Your task to perform on an android device: Search for the best rated 2021 Samsung Galaxy S21 Ultra on AliExpress Image 0: 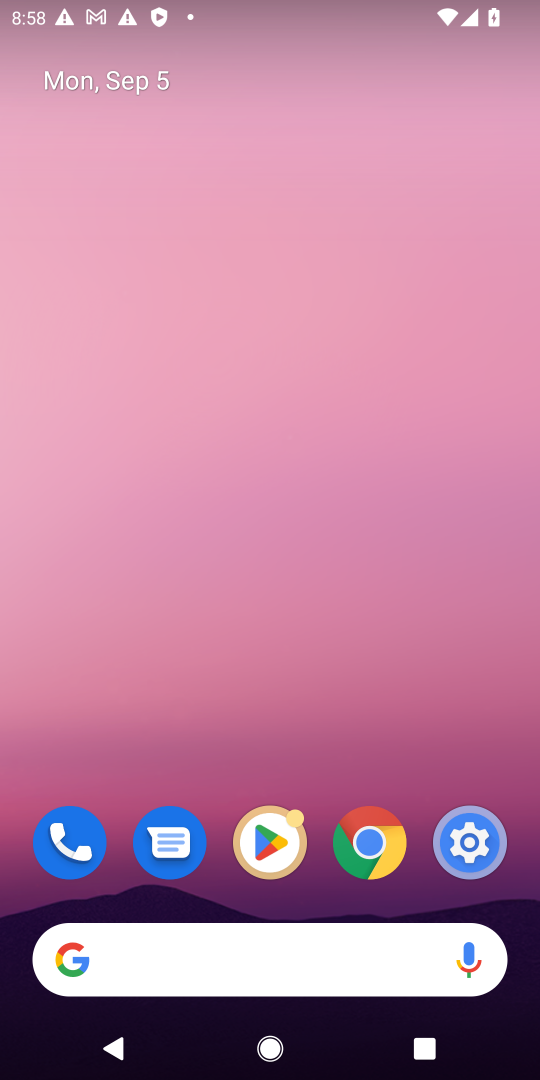
Step 0: click (367, 850)
Your task to perform on an android device: Search for the best rated 2021 Samsung Galaxy S21 Ultra on AliExpress Image 1: 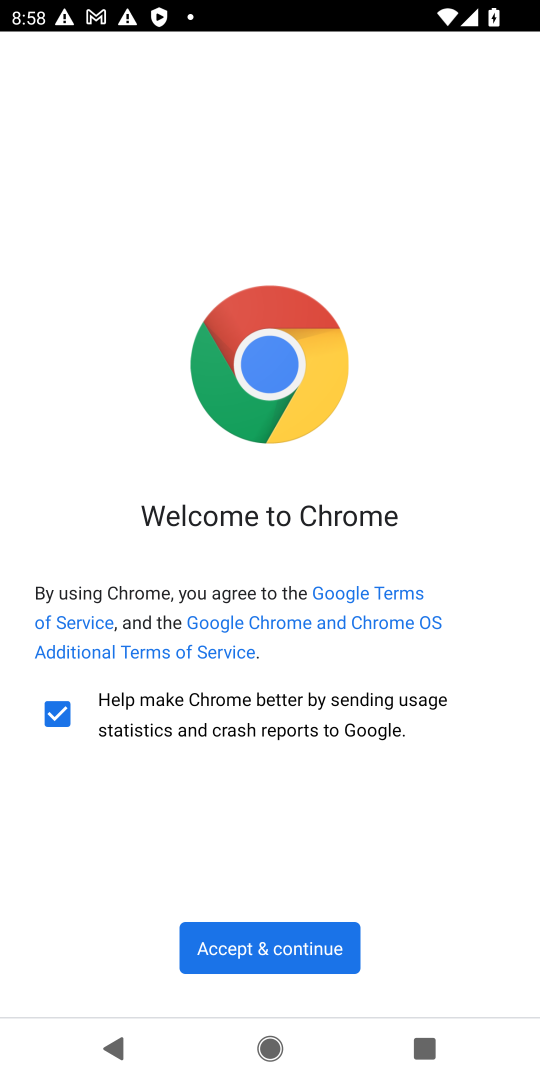
Step 1: click (234, 951)
Your task to perform on an android device: Search for the best rated 2021 Samsung Galaxy S21 Ultra on AliExpress Image 2: 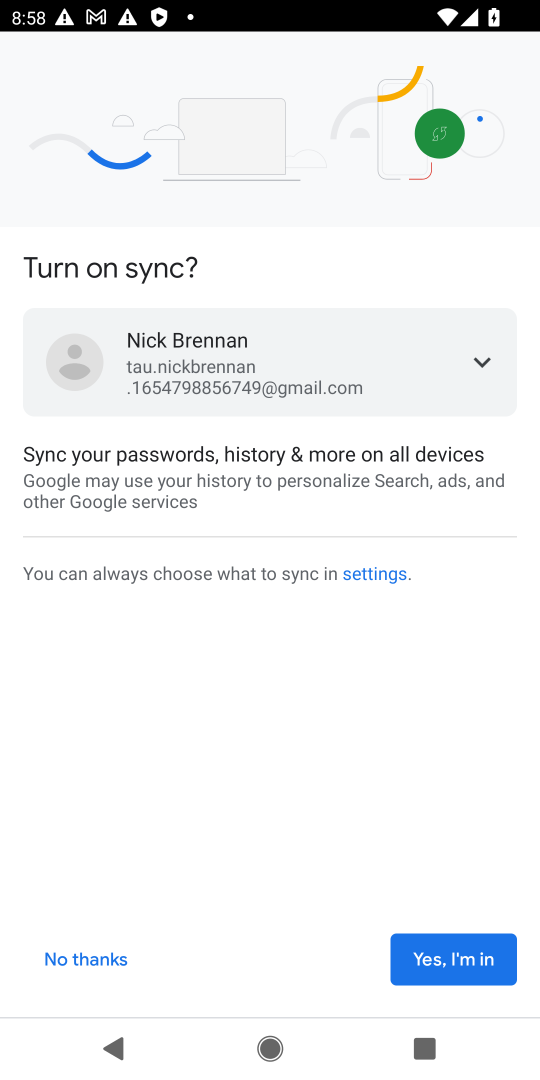
Step 2: click (454, 946)
Your task to perform on an android device: Search for the best rated 2021 Samsung Galaxy S21 Ultra on AliExpress Image 3: 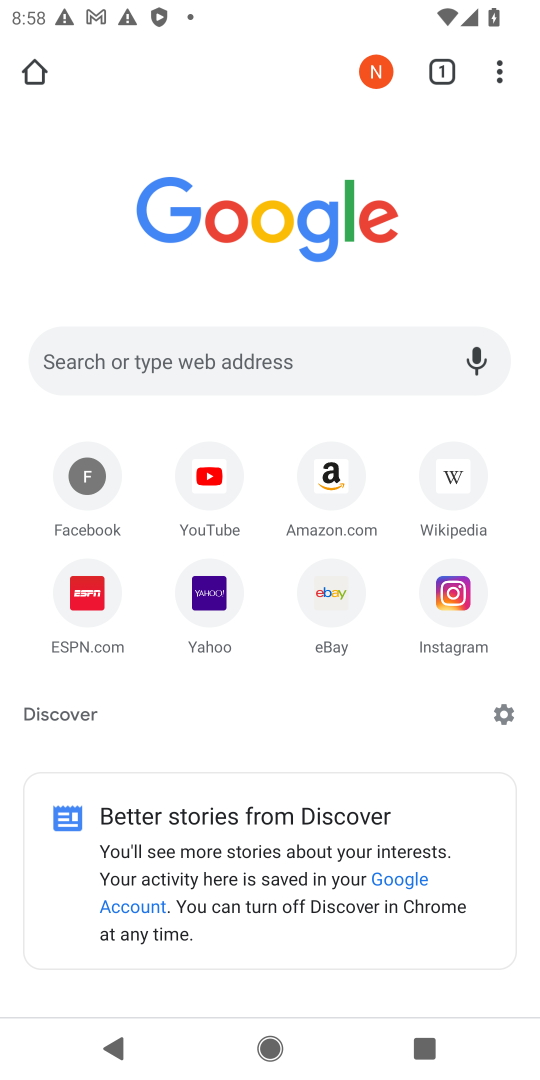
Step 3: click (135, 352)
Your task to perform on an android device: Search for the best rated 2021 Samsung Galaxy S21 Ultra on AliExpress Image 4: 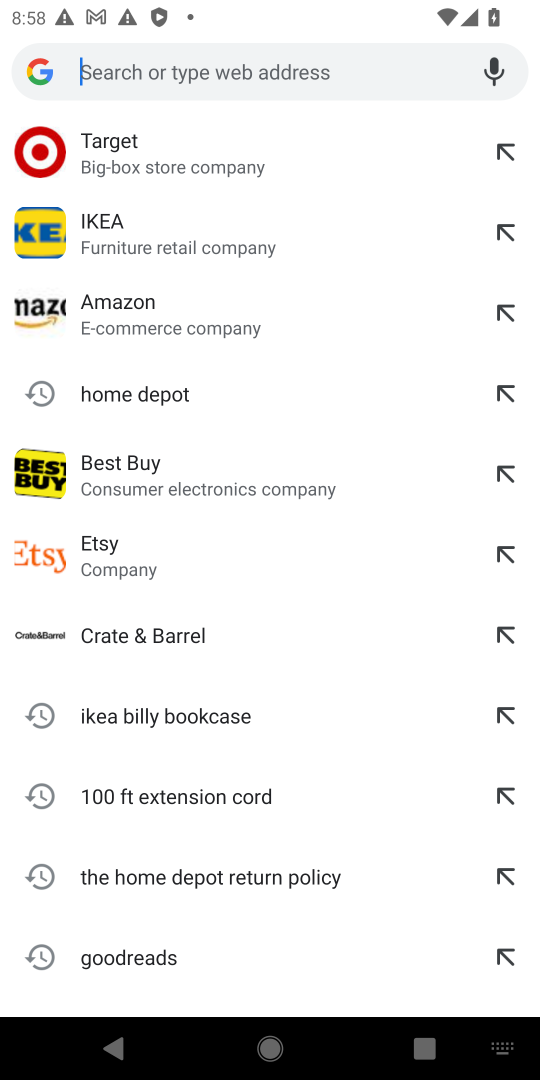
Step 4: type "ali express"
Your task to perform on an android device: Search for the best rated 2021 Samsung Galaxy S21 Ultra on AliExpress Image 5: 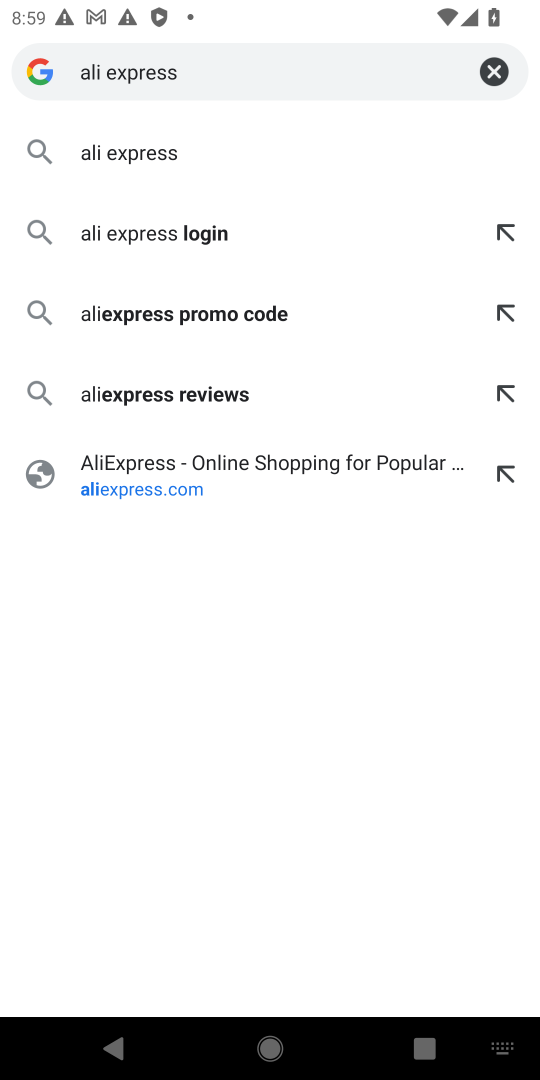
Step 5: click (129, 456)
Your task to perform on an android device: Search for the best rated 2021 Samsung Galaxy S21 Ultra on AliExpress Image 6: 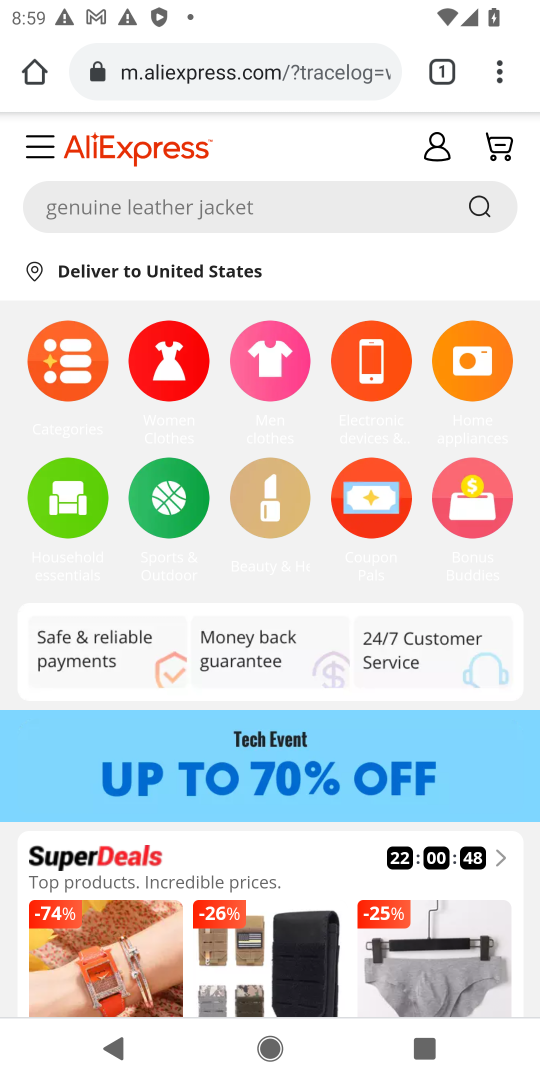
Step 6: click (350, 206)
Your task to perform on an android device: Search for the best rated 2021 Samsung Galaxy S21 Ultra on AliExpress Image 7: 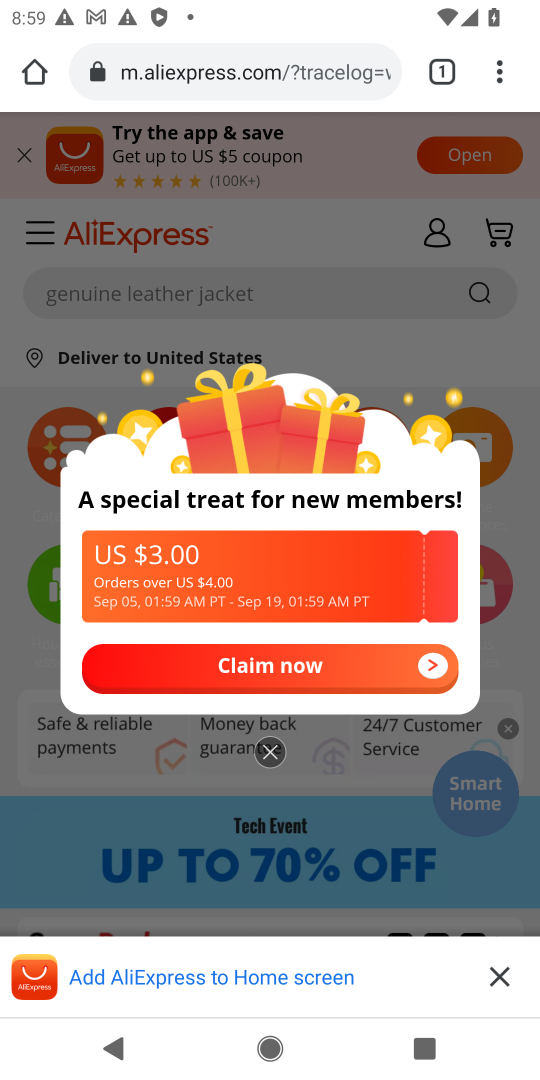
Step 7: click (269, 755)
Your task to perform on an android device: Search for the best rated 2021 Samsung Galaxy S21 Ultra on AliExpress Image 8: 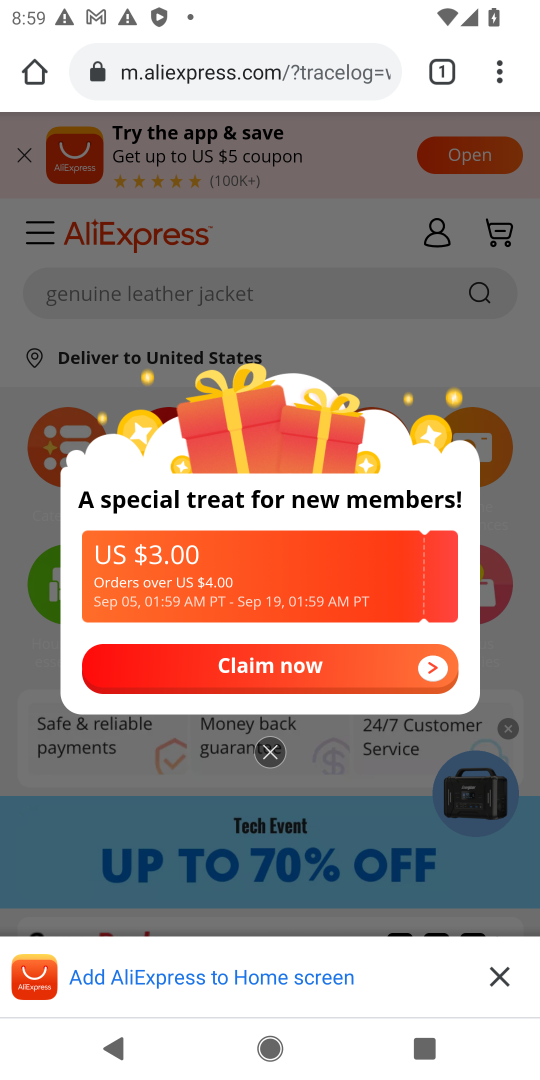
Step 8: click (263, 748)
Your task to perform on an android device: Search for the best rated 2021 Samsung Galaxy S21 Ultra on AliExpress Image 9: 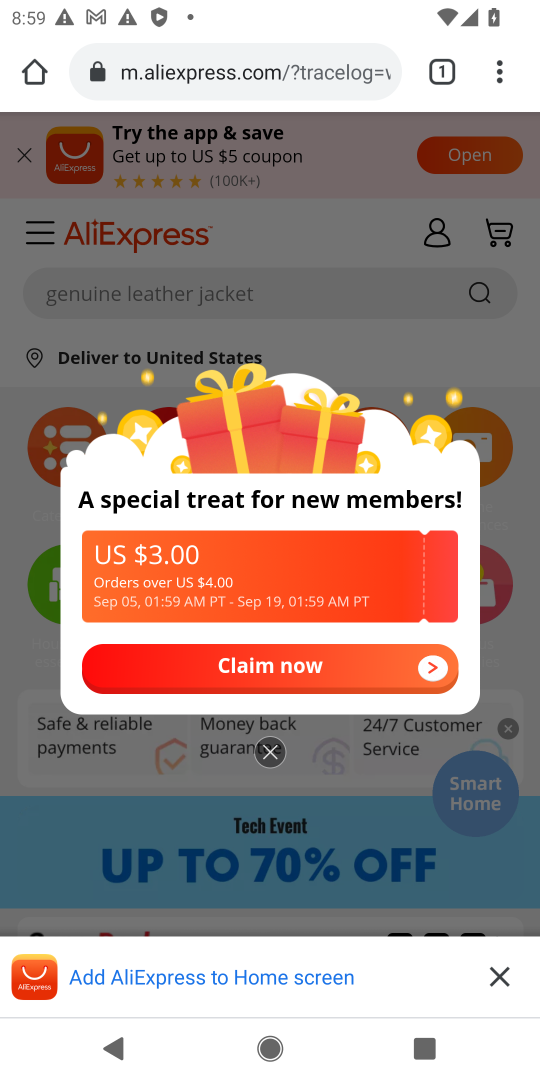
Step 9: click (274, 756)
Your task to perform on an android device: Search for the best rated 2021 Samsung Galaxy S21 Ultra on AliExpress Image 10: 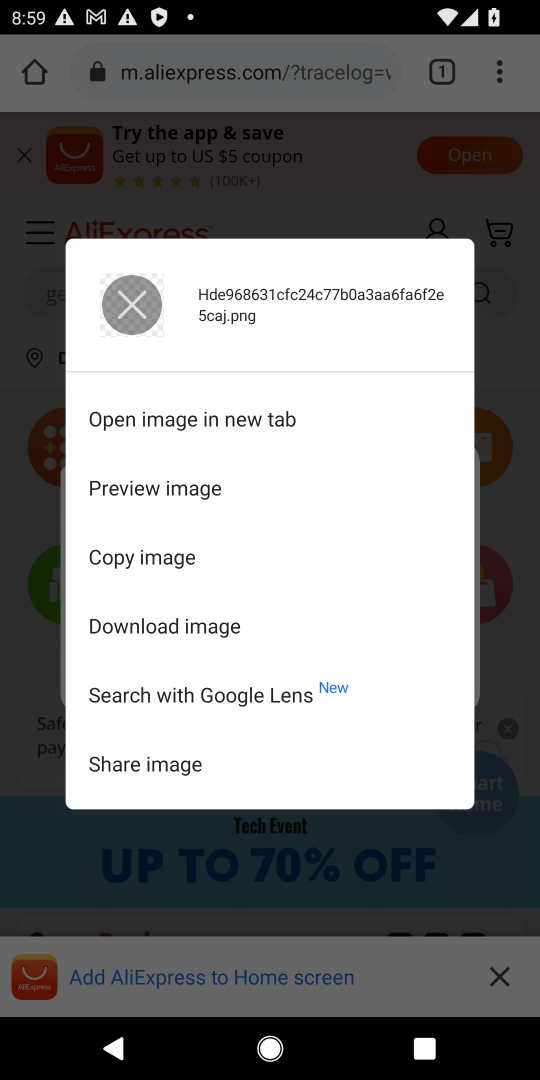
Step 10: click (130, 313)
Your task to perform on an android device: Search for the best rated 2021 Samsung Galaxy S21 Ultra on AliExpress Image 11: 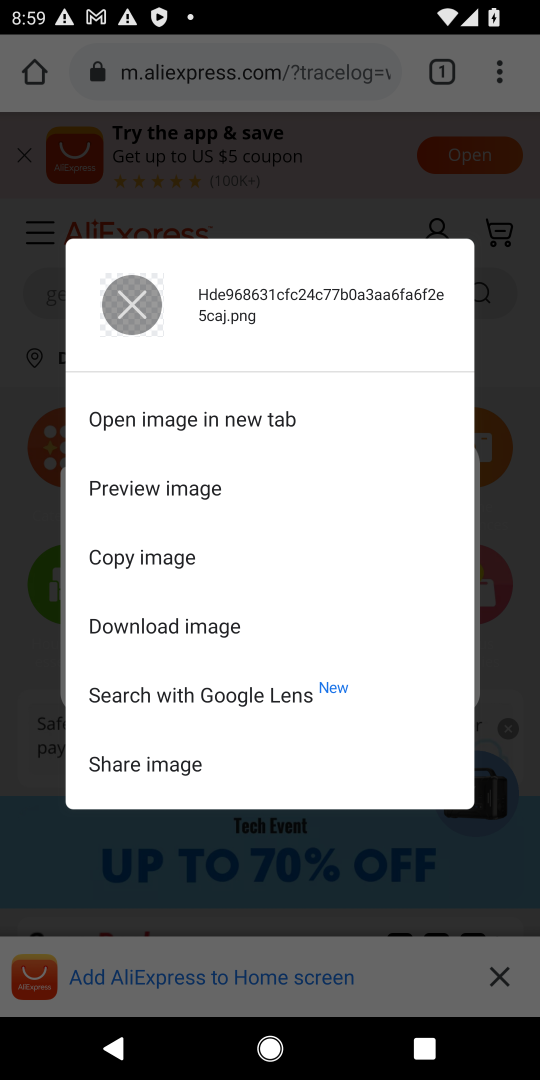
Step 11: click (128, 312)
Your task to perform on an android device: Search for the best rated 2021 Samsung Galaxy S21 Ultra on AliExpress Image 12: 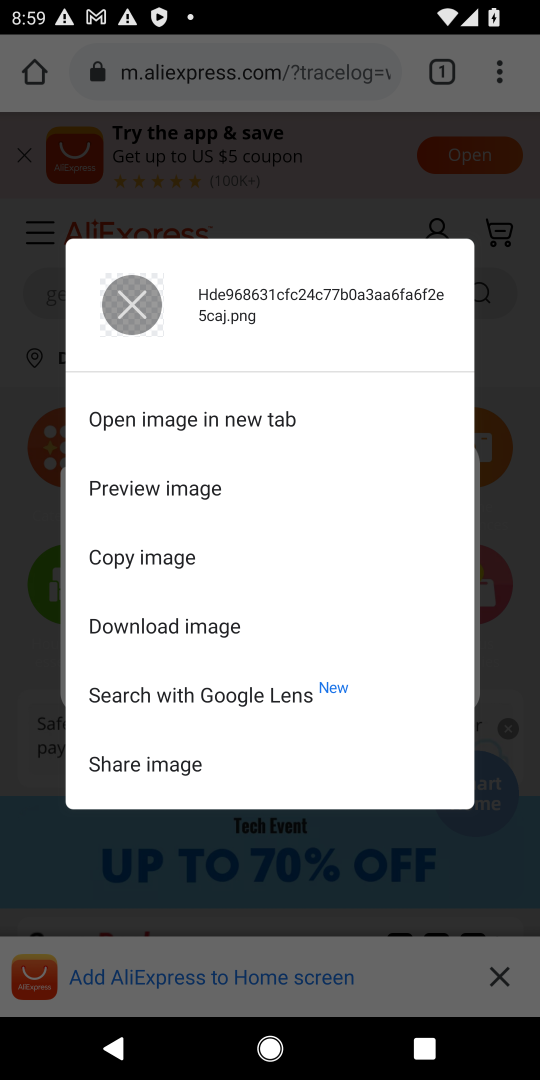
Step 12: click (128, 312)
Your task to perform on an android device: Search for the best rated 2021 Samsung Galaxy S21 Ultra on AliExpress Image 13: 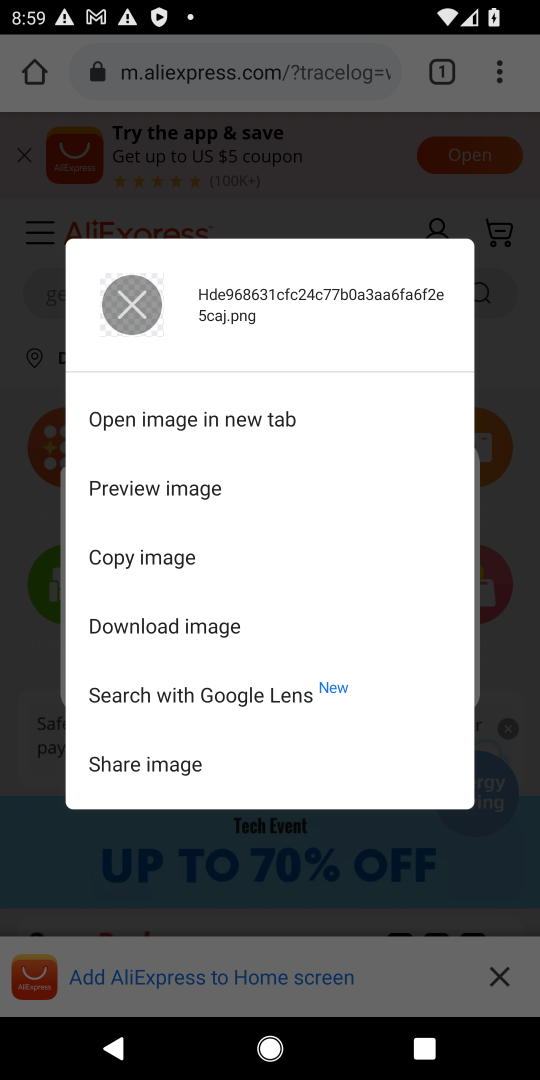
Step 13: click (131, 300)
Your task to perform on an android device: Search for the best rated 2021 Samsung Galaxy S21 Ultra on AliExpress Image 14: 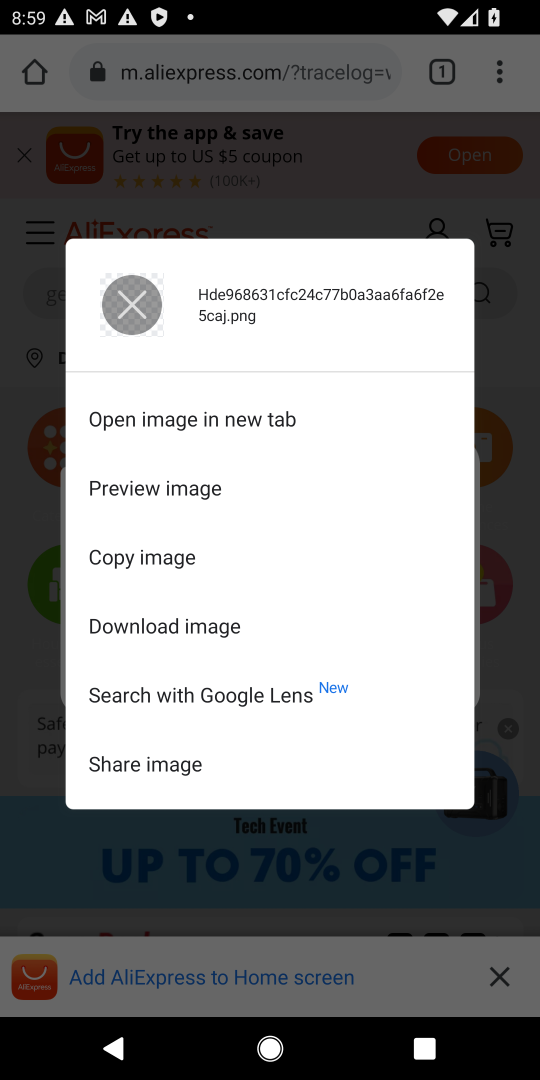
Step 14: press back button
Your task to perform on an android device: Search for the best rated 2021 Samsung Galaxy S21 Ultra on AliExpress Image 15: 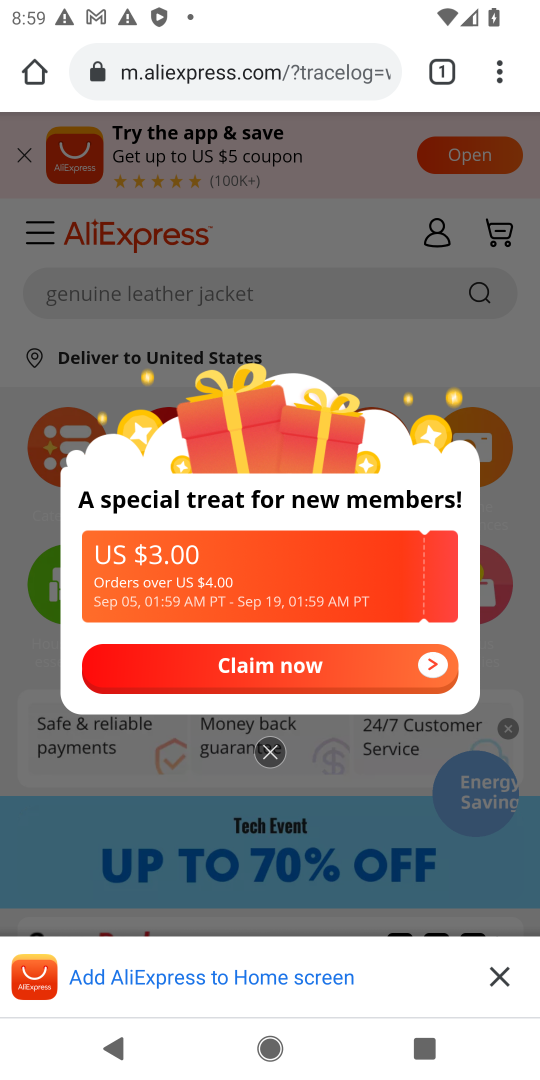
Step 15: click (272, 751)
Your task to perform on an android device: Search for the best rated 2021 Samsung Galaxy S21 Ultra on AliExpress Image 16: 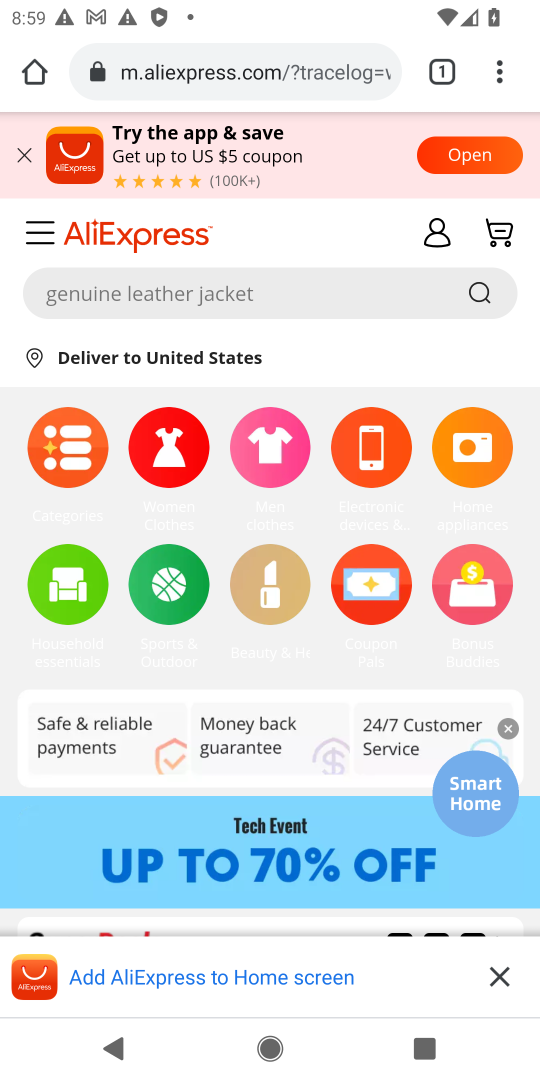
Step 16: click (236, 283)
Your task to perform on an android device: Search for the best rated 2021 Samsung Galaxy S21 Ultra on AliExpress Image 17: 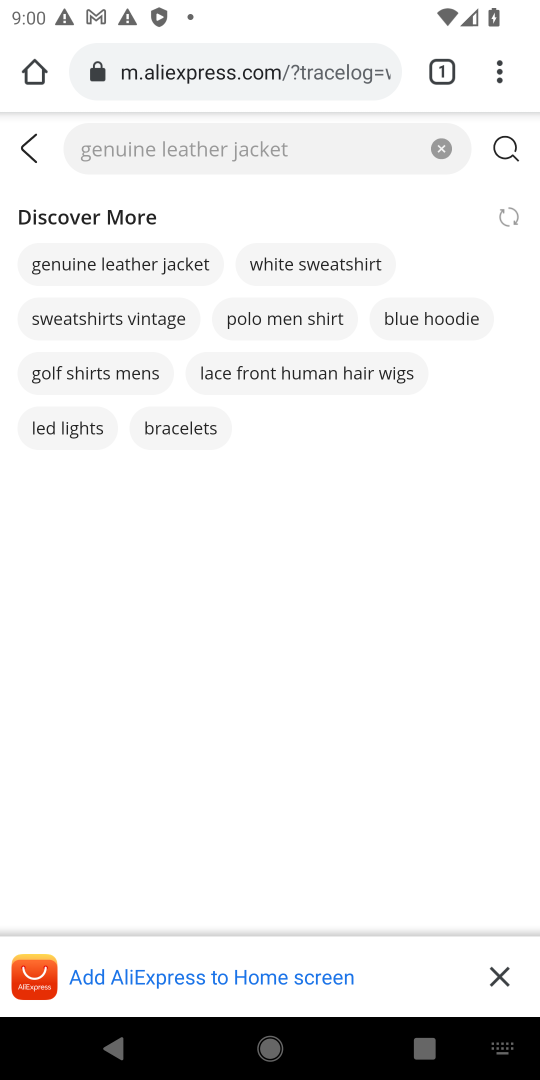
Step 17: type "samsung galaxy s21 ultra"
Your task to perform on an android device: Search for the best rated 2021 Samsung Galaxy S21 Ultra on AliExpress Image 18: 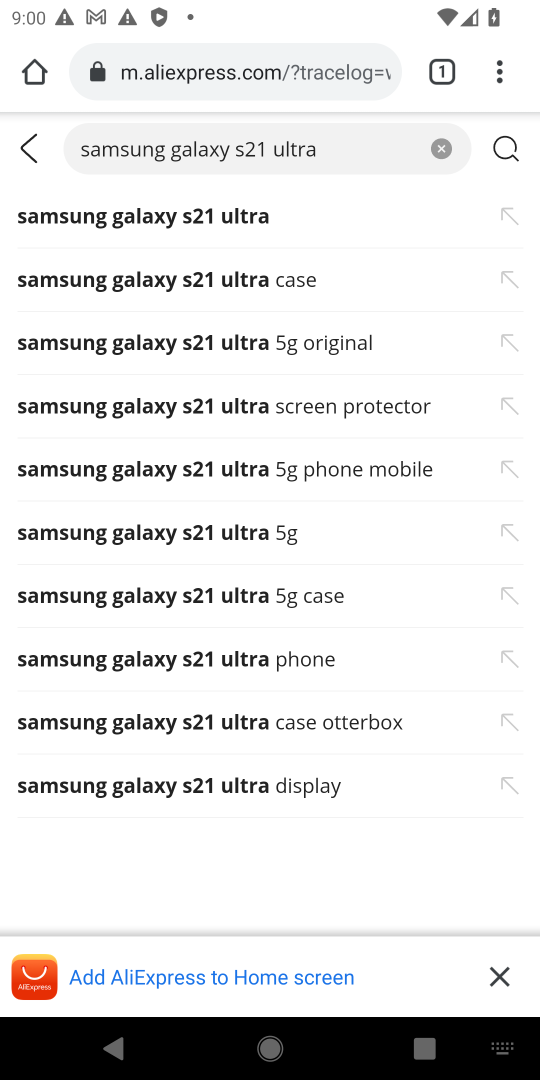
Step 18: click (152, 212)
Your task to perform on an android device: Search for the best rated 2021 Samsung Galaxy S21 Ultra on AliExpress Image 19: 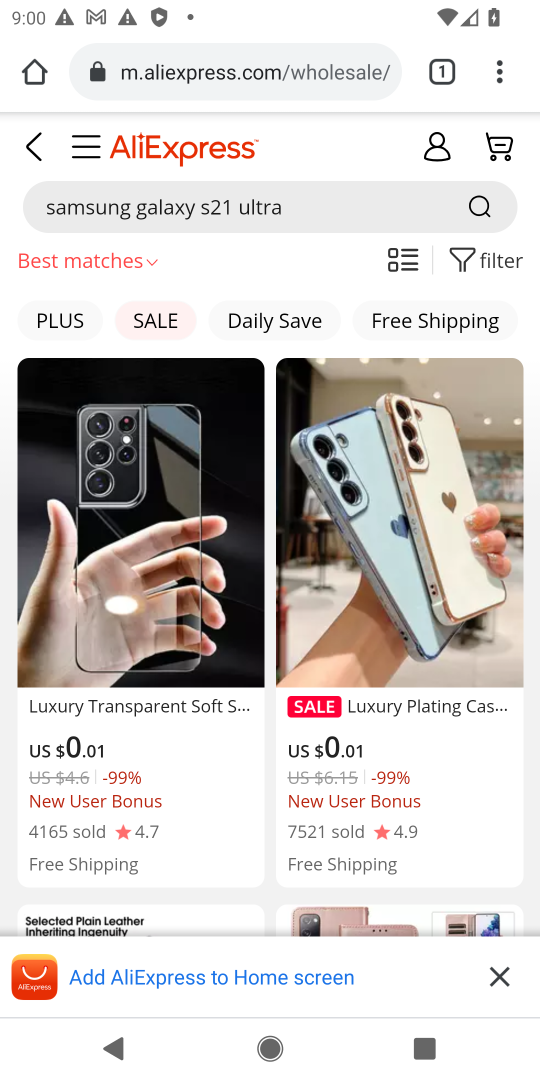
Step 19: drag from (410, 635) to (484, 778)
Your task to perform on an android device: Search for the best rated 2021 Samsung Galaxy S21 Ultra on AliExpress Image 20: 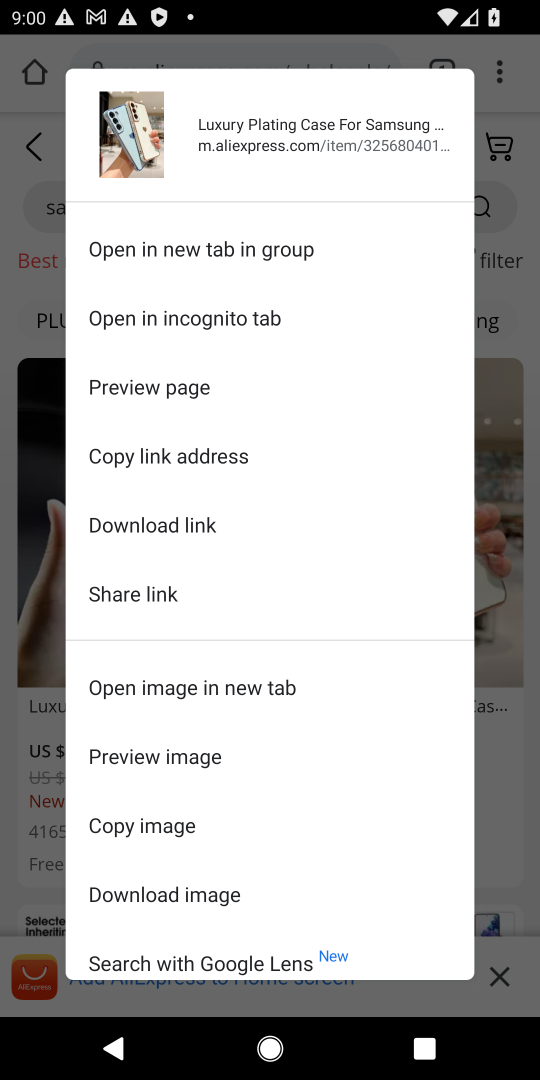
Step 20: click (499, 984)
Your task to perform on an android device: Search for the best rated 2021 Samsung Galaxy S21 Ultra on AliExpress Image 21: 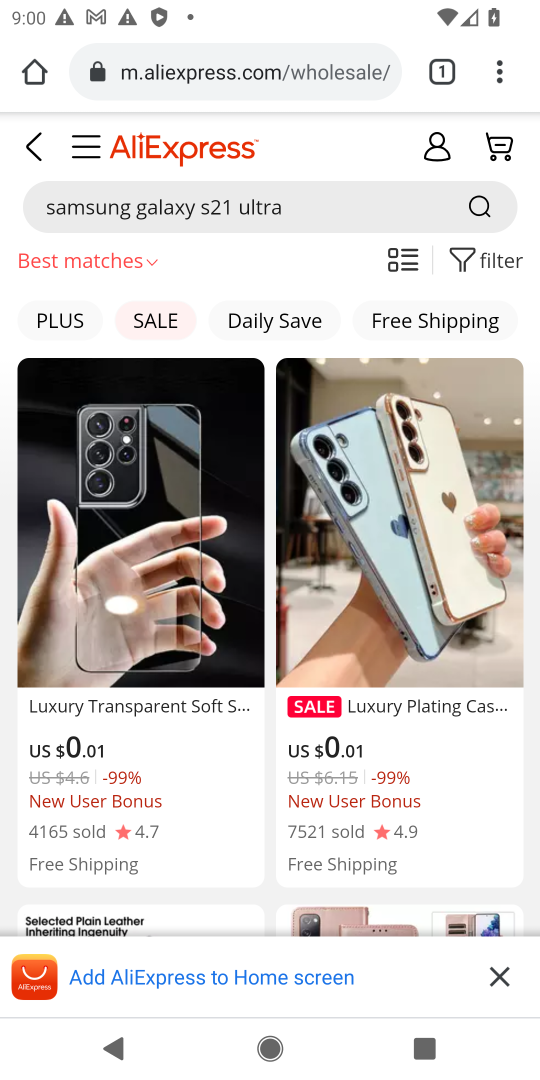
Step 21: drag from (476, 492) to (476, 415)
Your task to perform on an android device: Search for the best rated 2021 Samsung Galaxy S21 Ultra on AliExpress Image 22: 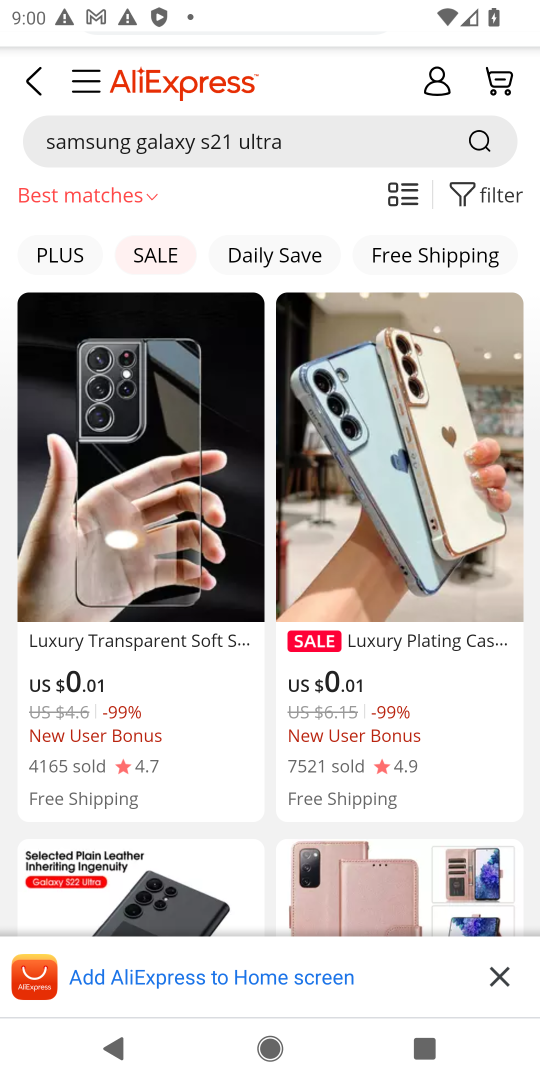
Step 22: drag from (511, 736) to (409, 476)
Your task to perform on an android device: Search for the best rated 2021 Samsung Galaxy S21 Ultra on AliExpress Image 23: 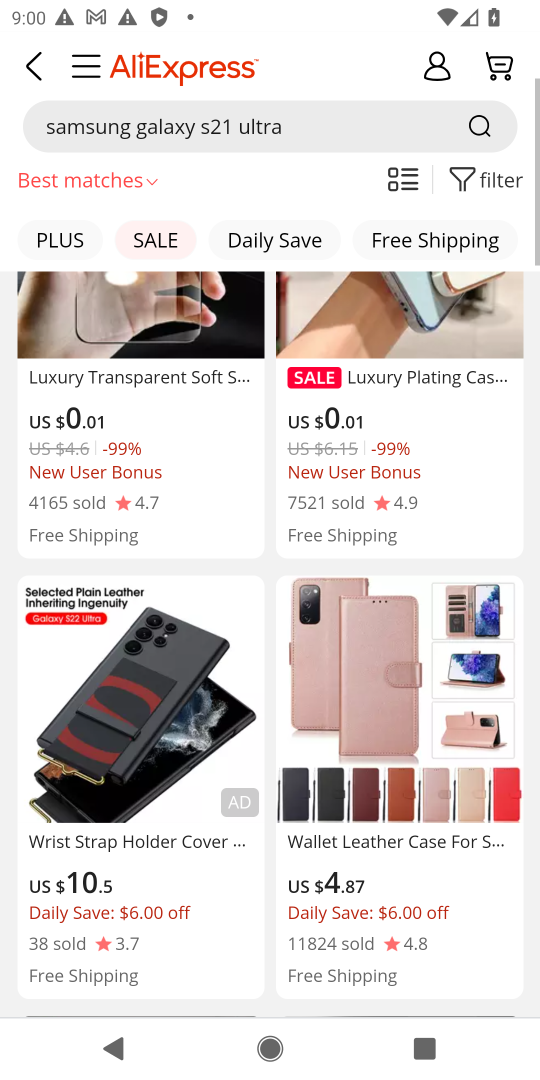
Step 23: drag from (392, 609) to (405, 330)
Your task to perform on an android device: Search for the best rated 2021 Samsung Galaxy S21 Ultra on AliExpress Image 24: 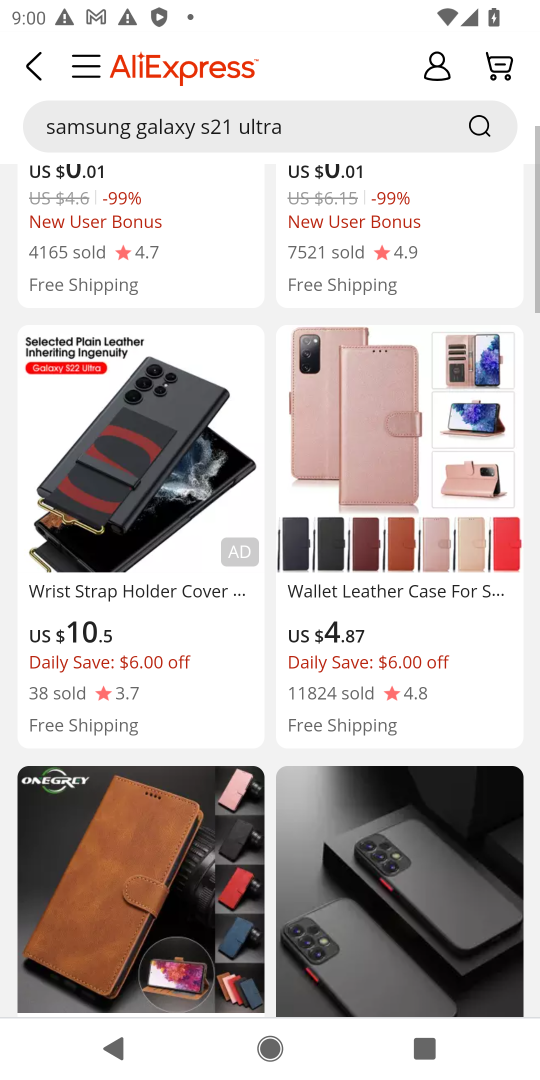
Step 24: drag from (436, 856) to (437, 440)
Your task to perform on an android device: Search for the best rated 2021 Samsung Galaxy S21 Ultra on AliExpress Image 25: 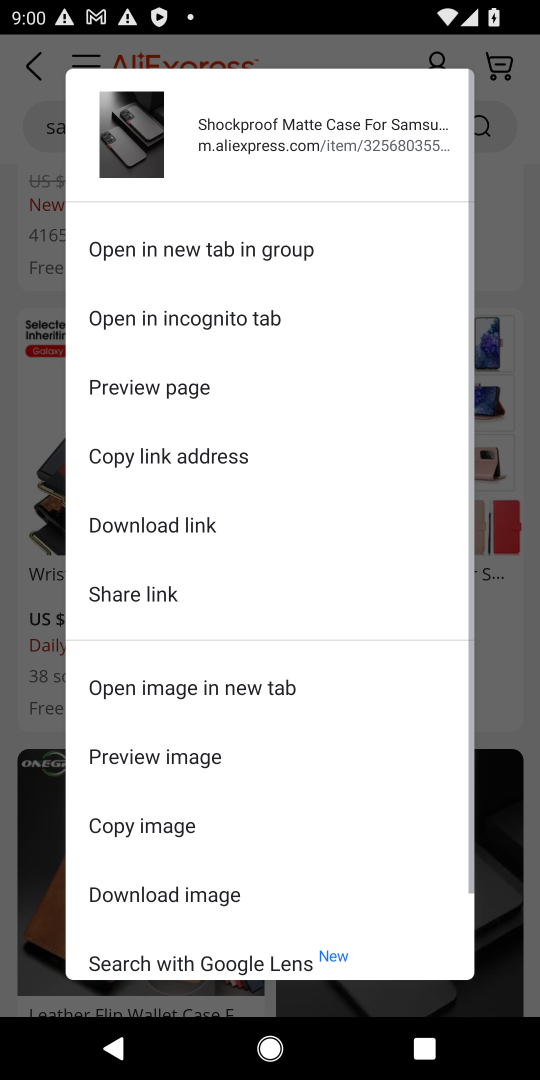
Step 25: drag from (535, 475) to (533, 382)
Your task to perform on an android device: Search for the best rated 2021 Samsung Galaxy S21 Ultra on AliExpress Image 26: 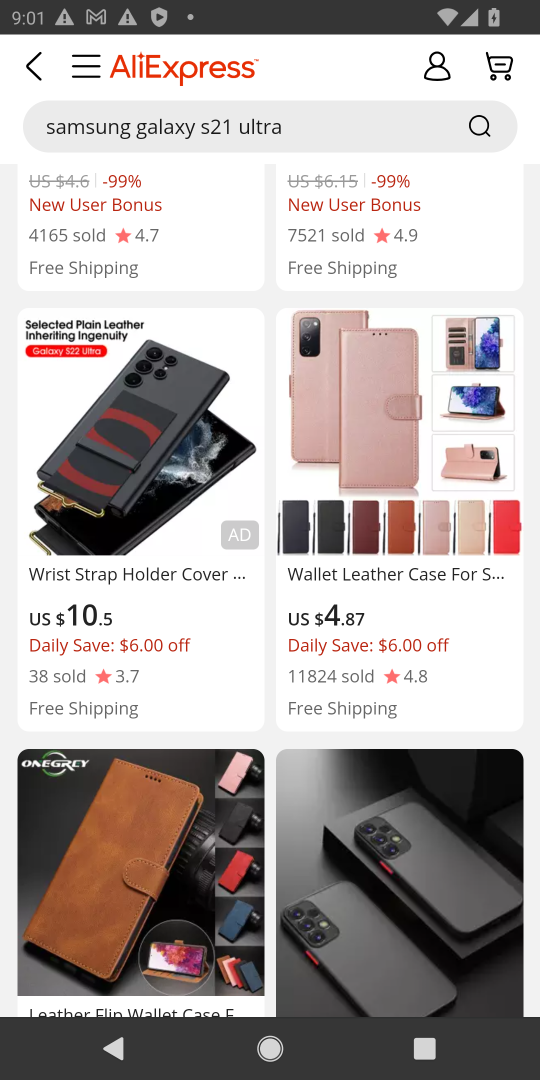
Step 26: drag from (430, 419) to (450, 957)
Your task to perform on an android device: Search for the best rated 2021 Samsung Galaxy S21 Ultra on AliExpress Image 27: 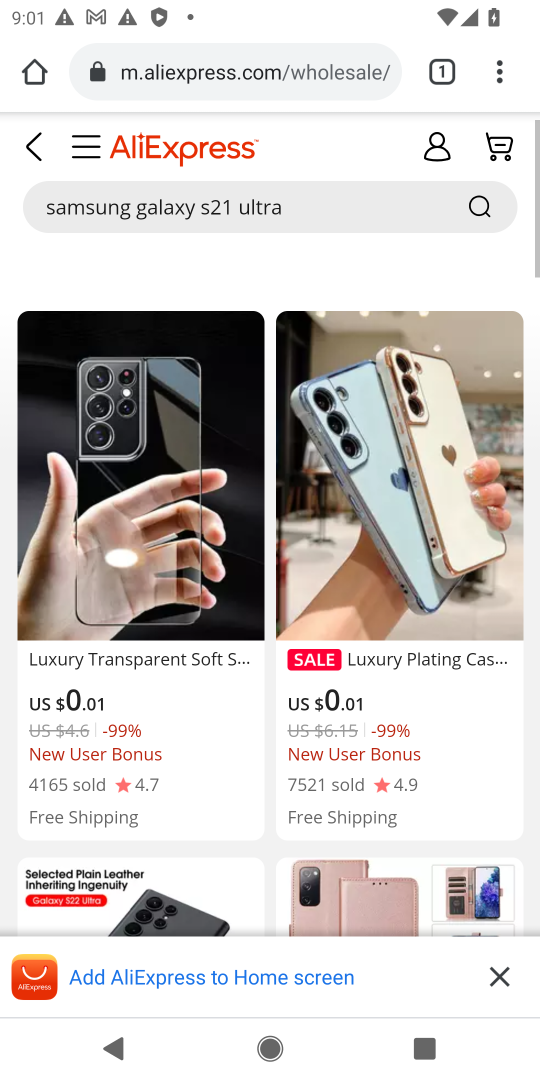
Step 27: click (481, 856)
Your task to perform on an android device: Search for the best rated 2021 Samsung Galaxy S21 Ultra on AliExpress Image 28: 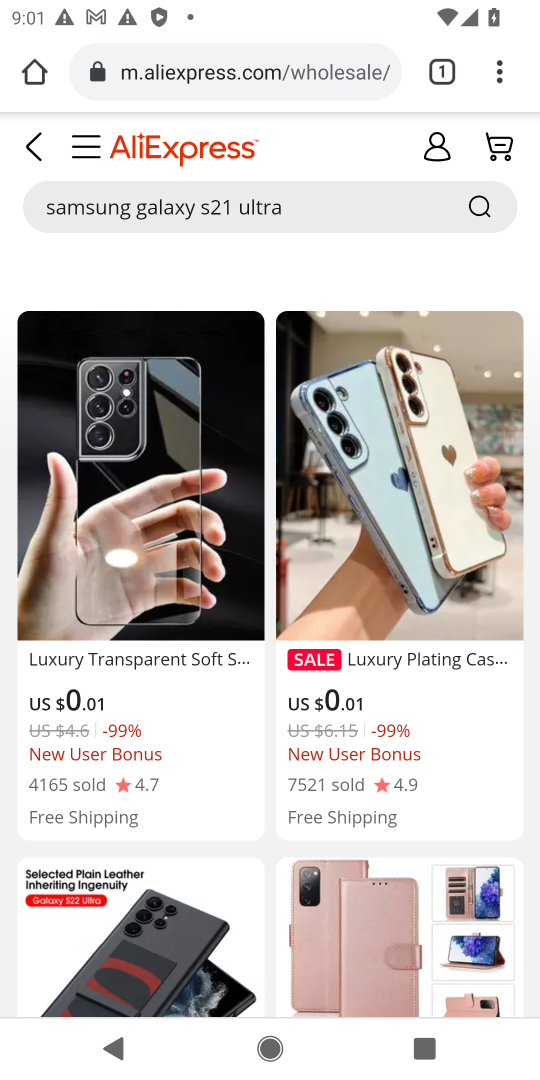
Step 28: click (84, 145)
Your task to perform on an android device: Search for the best rated 2021 Samsung Galaxy S21 Ultra on AliExpress Image 29: 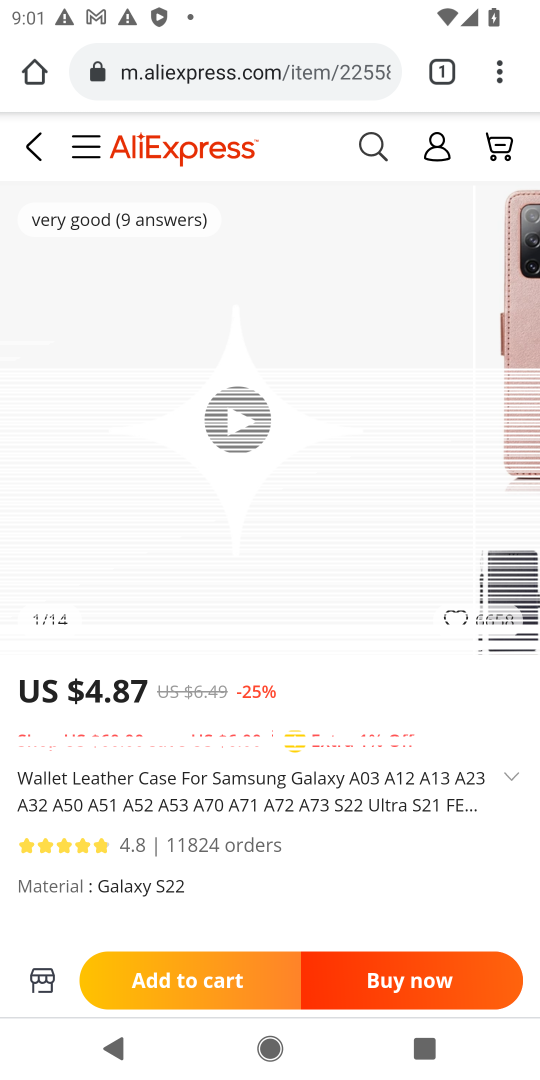
Step 29: click (94, 137)
Your task to perform on an android device: Search for the best rated 2021 Samsung Galaxy S21 Ultra on AliExpress Image 30: 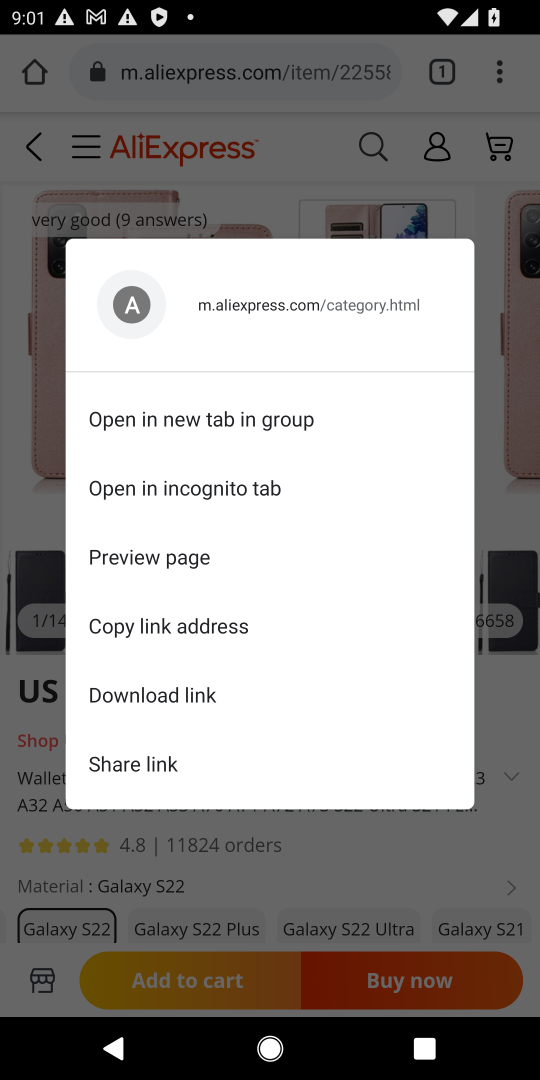
Step 30: task complete